Your task to perform on an android device: open app "Microsoft Excel" (install if not already installed) and enter user name: "kidnappers@icloud.com" and password: "Bessemerizes" Image 0: 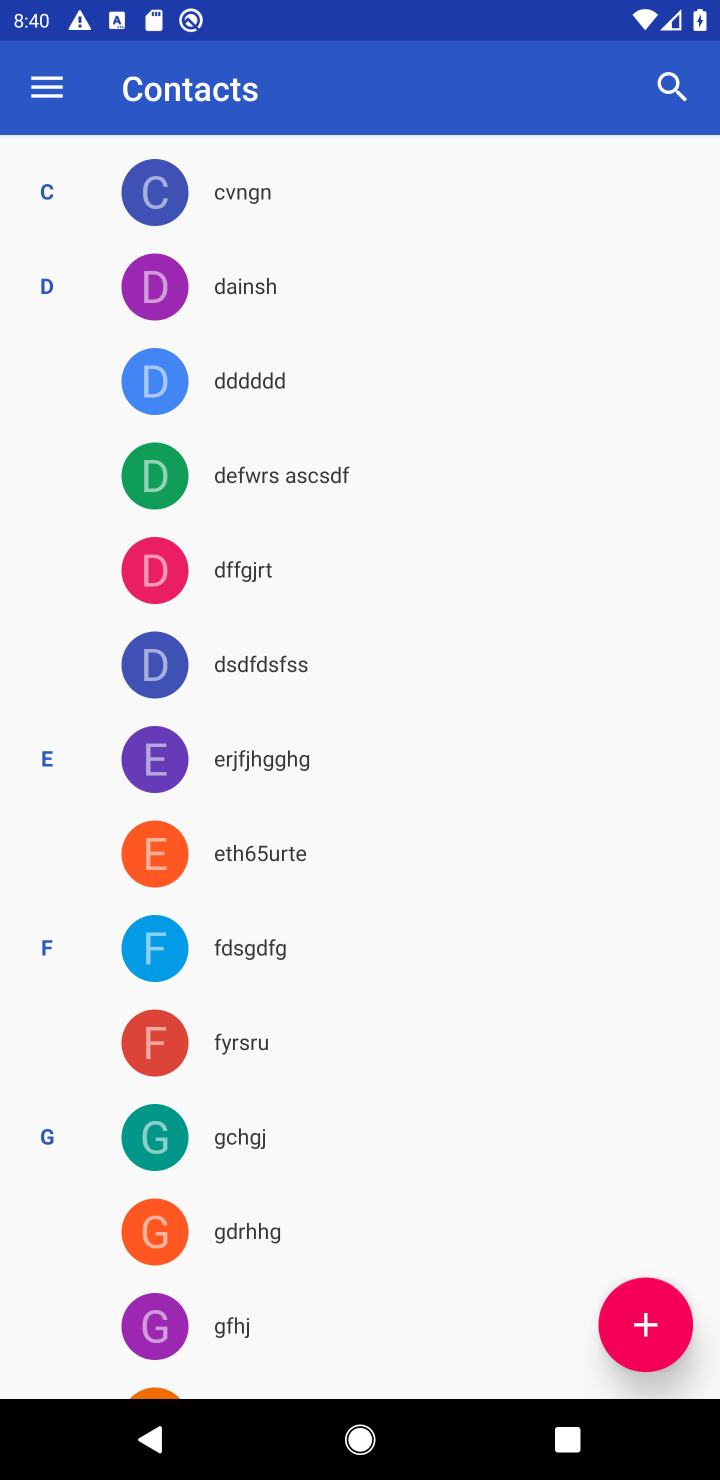
Step 0: press home button
Your task to perform on an android device: open app "Microsoft Excel" (install if not already installed) and enter user name: "kidnappers@icloud.com" and password: "Bessemerizes" Image 1: 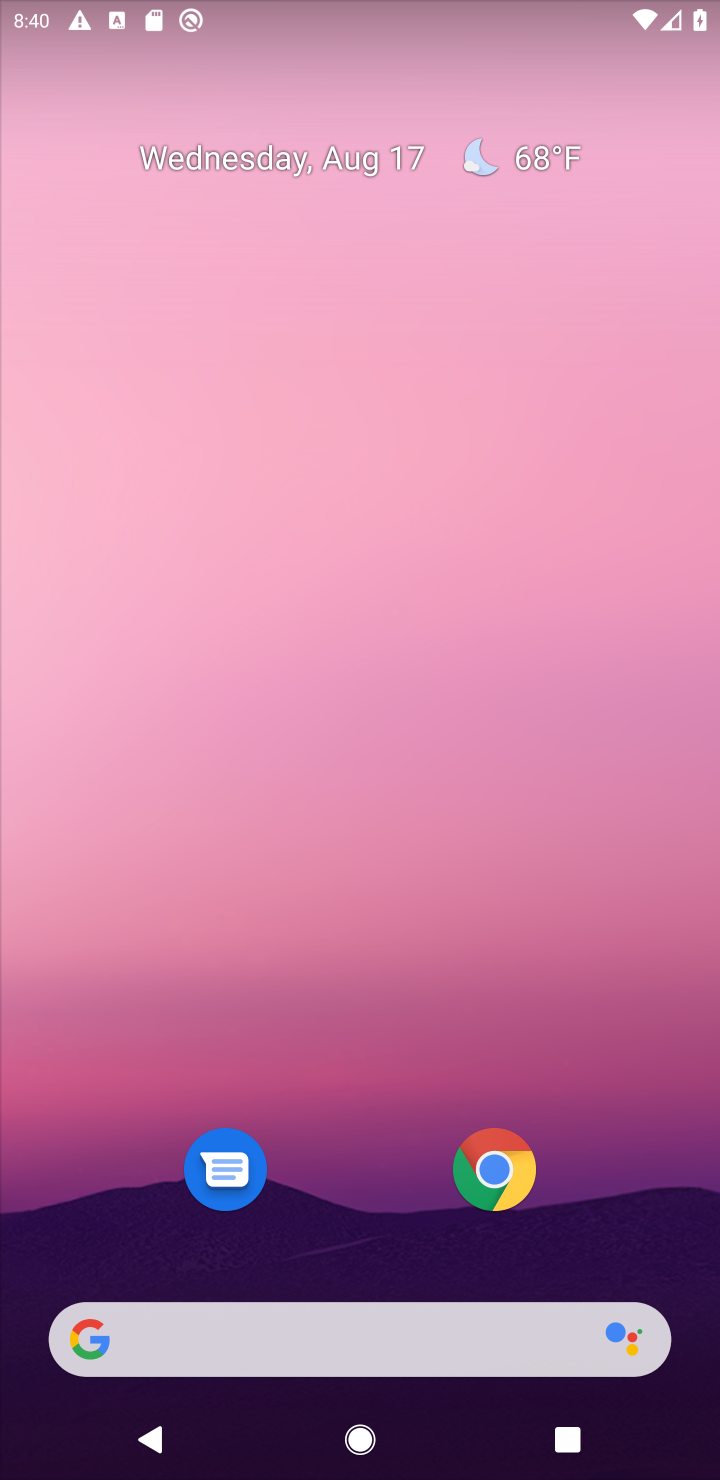
Step 1: drag from (331, 1162) to (340, 5)
Your task to perform on an android device: open app "Microsoft Excel" (install if not already installed) and enter user name: "kidnappers@icloud.com" and password: "Bessemerizes" Image 2: 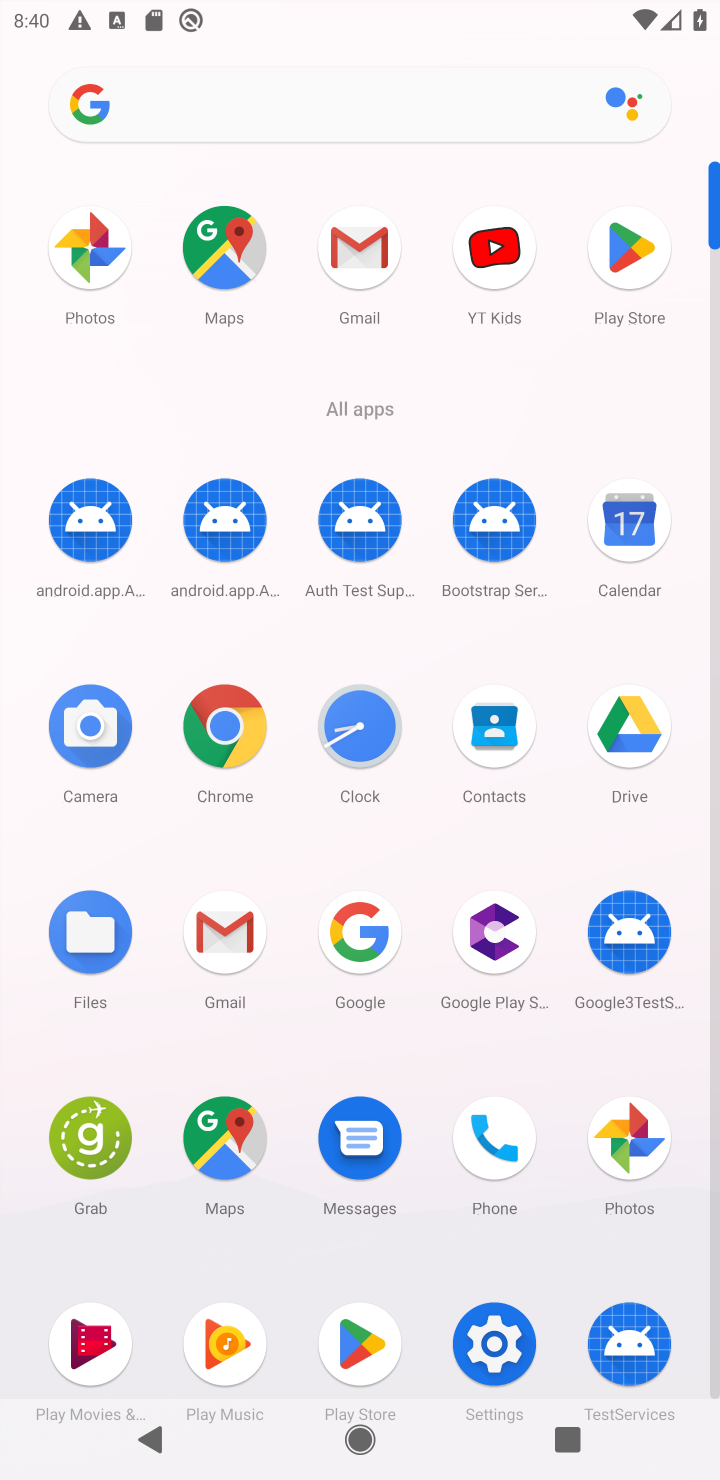
Step 2: click (645, 282)
Your task to perform on an android device: open app "Microsoft Excel" (install if not already installed) and enter user name: "kidnappers@icloud.com" and password: "Bessemerizes" Image 3: 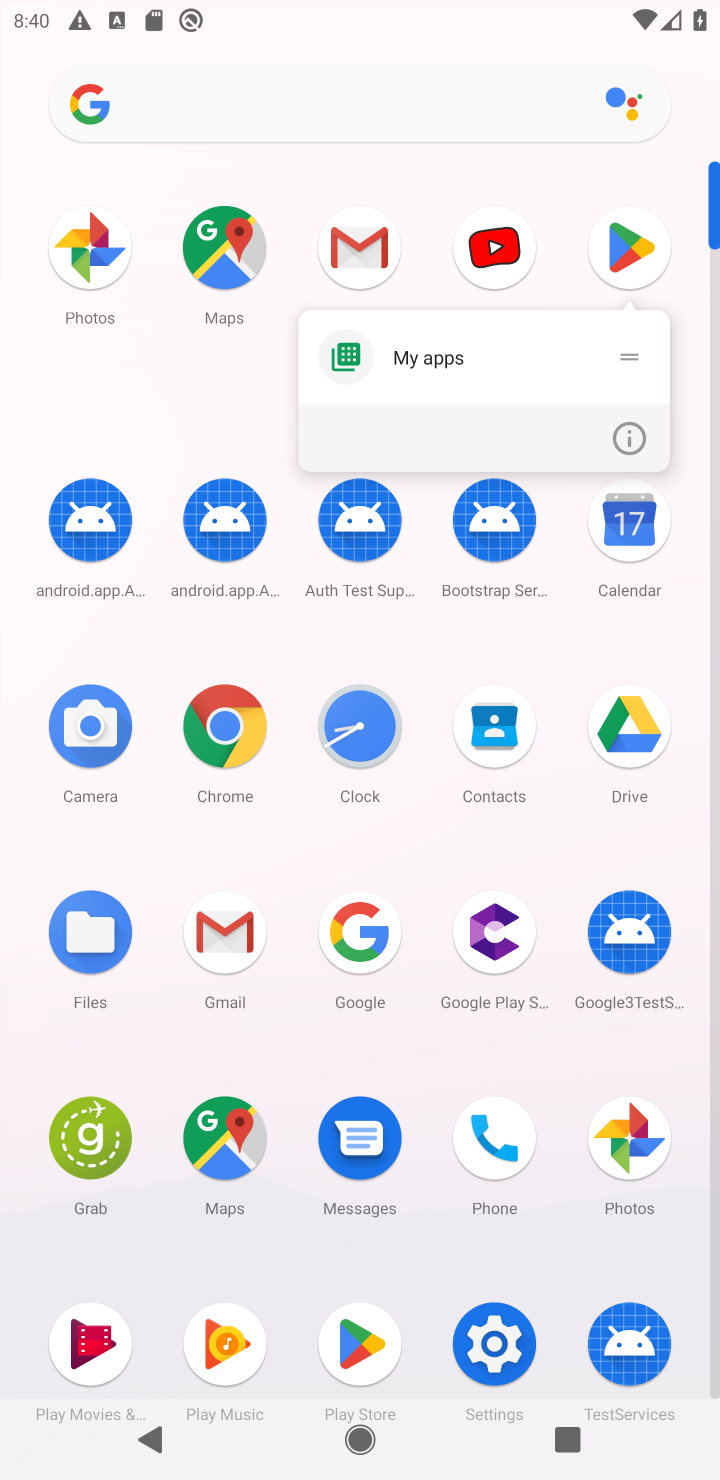
Step 3: click (643, 258)
Your task to perform on an android device: open app "Microsoft Excel" (install if not already installed) and enter user name: "kidnappers@icloud.com" and password: "Bessemerizes" Image 4: 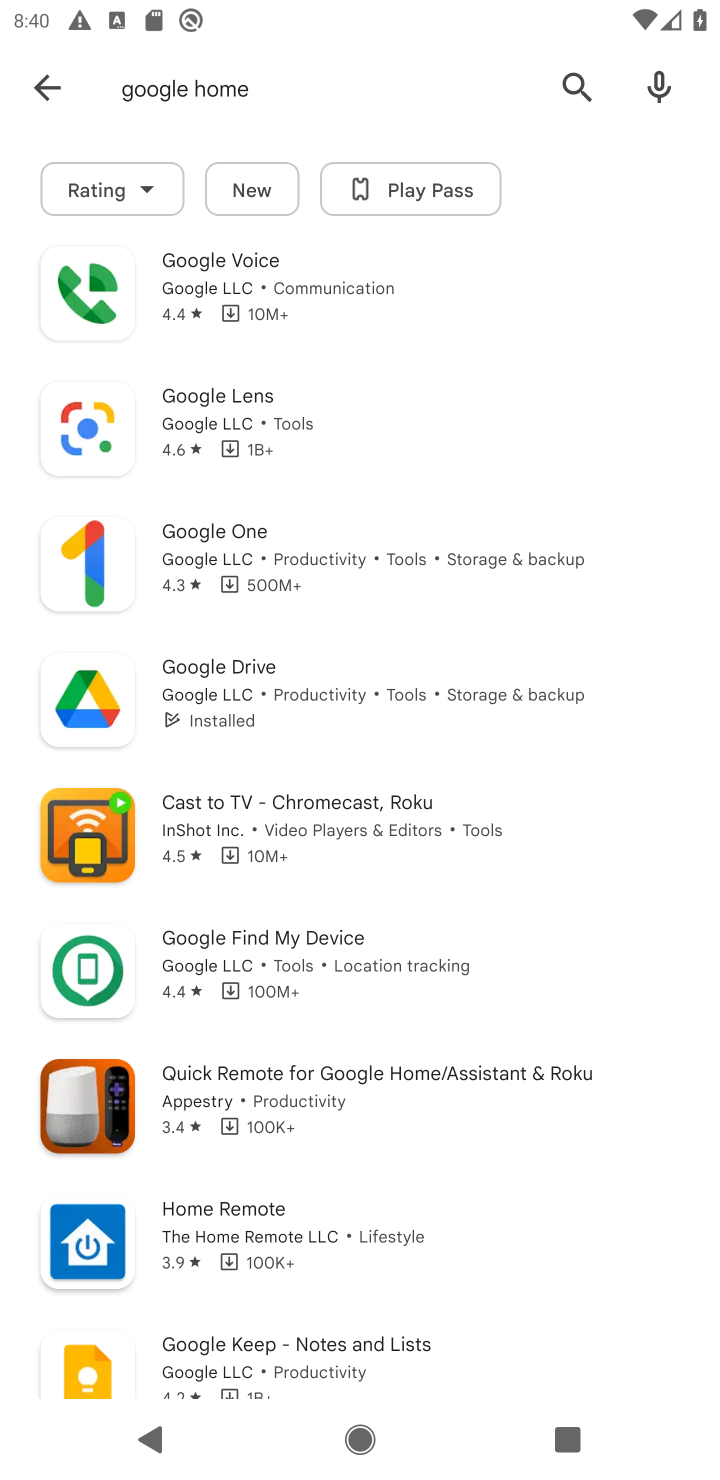
Step 4: click (265, 68)
Your task to perform on an android device: open app "Microsoft Excel" (install if not already installed) and enter user name: "kidnappers@icloud.com" and password: "Bessemerizes" Image 5: 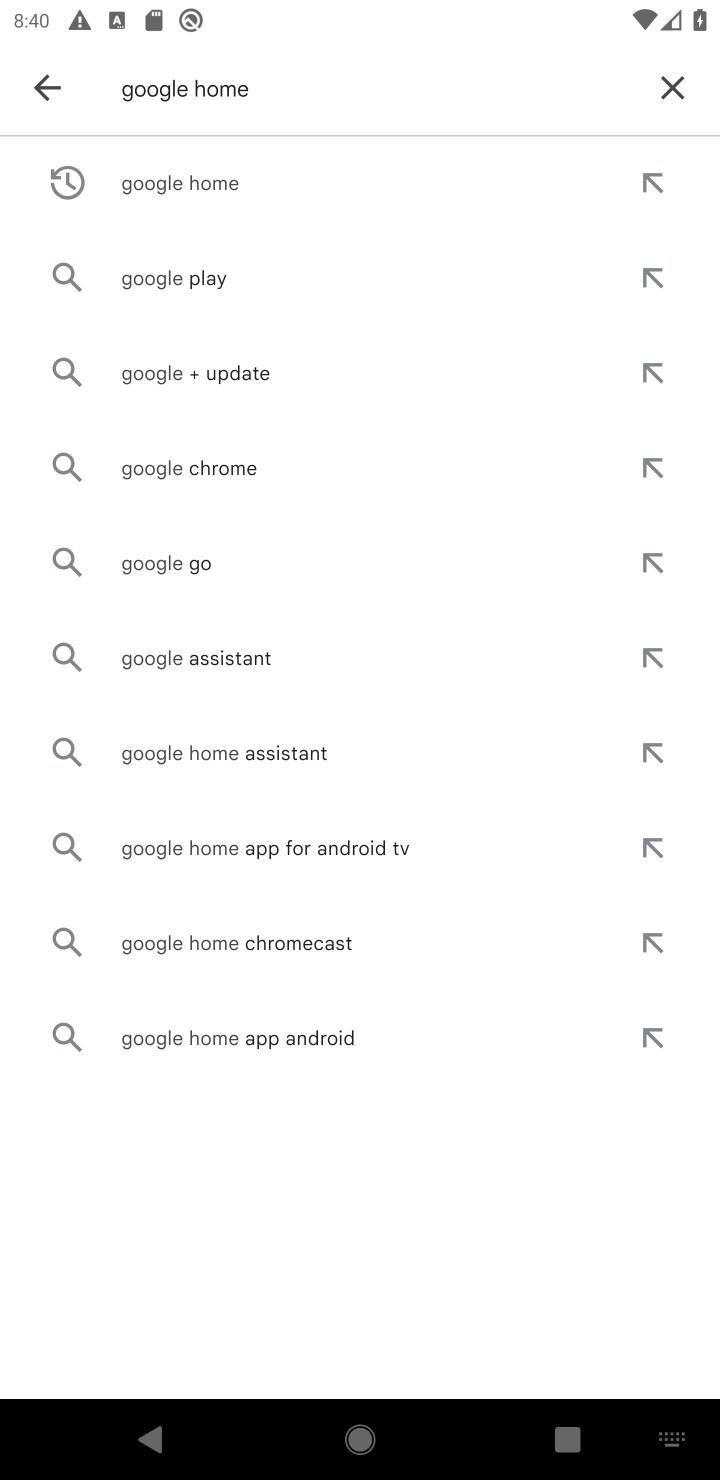
Step 5: click (656, 79)
Your task to perform on an android device: open app "Microsoft Excel" (install if not already installed) and enter user name: "kidnappers@icloud.com" and password: "Bessemerizes" Image 6: 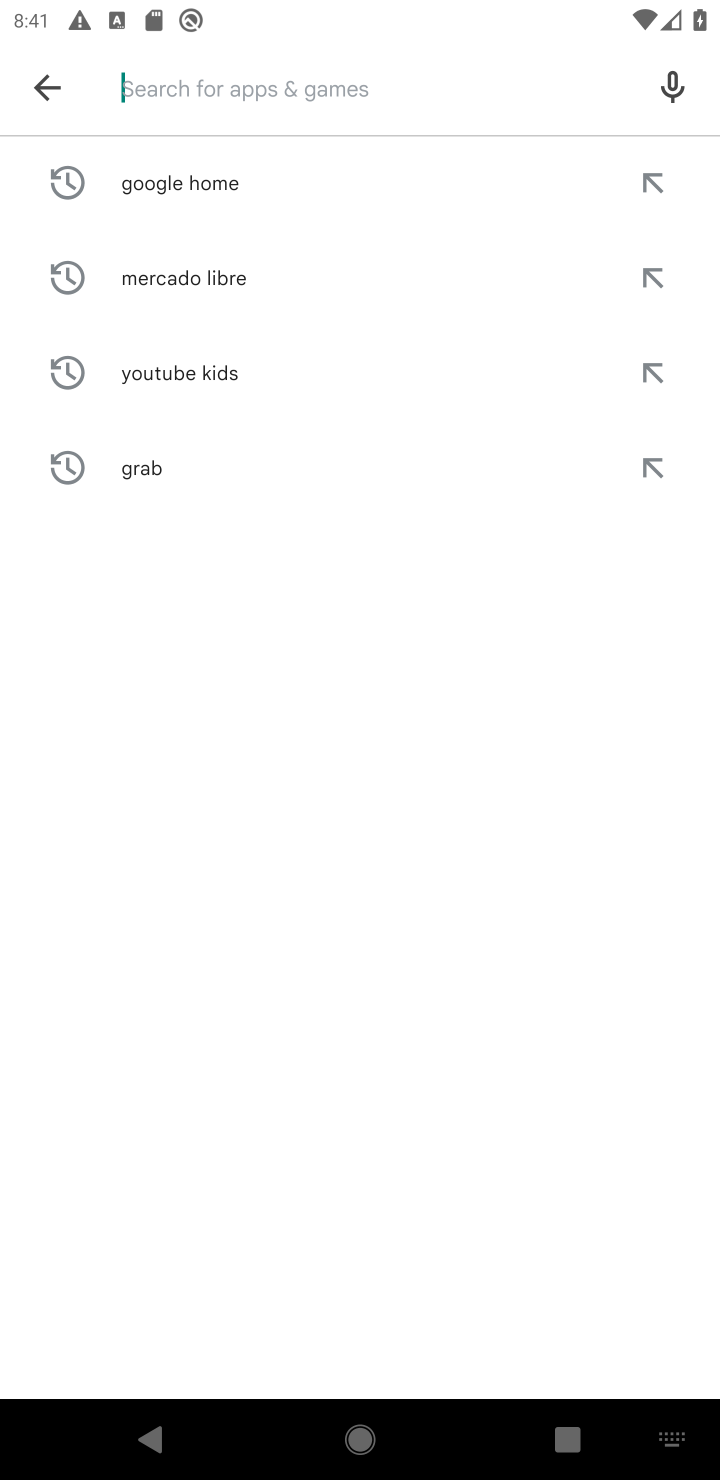
Step 6: type "microsoft excel"
Your task to perform on an android device: open app "Microsoft Excel" (install if not already installed) and enter user name: "kidnappers@icloud.com" and password: "Bessemerizes" Image 7: 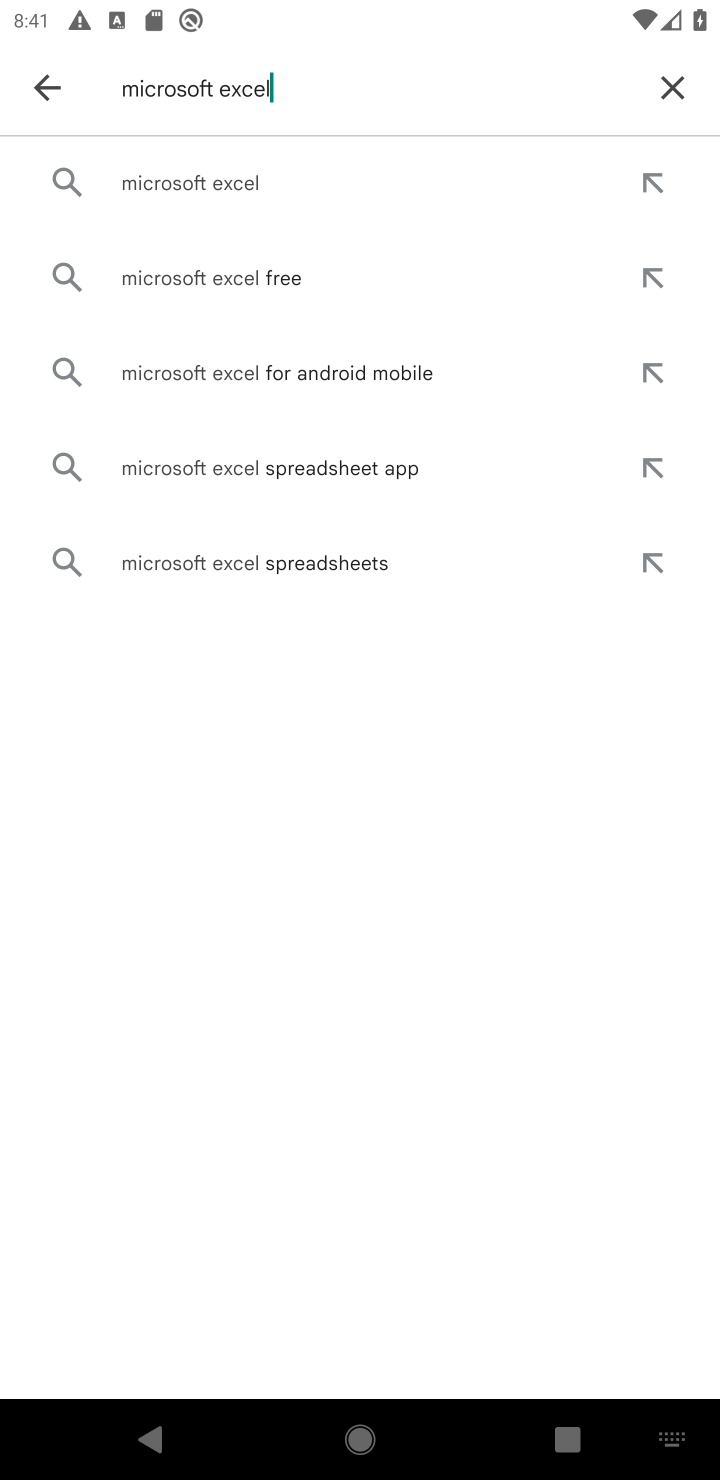
Step 7: click (254, 193)
Your task to perform on an android device: open app "Microsoft Excel" (install if not already installed) and enter user name: "kidnappers@icloud.com" and password: "Bessemerizes" Image 8: 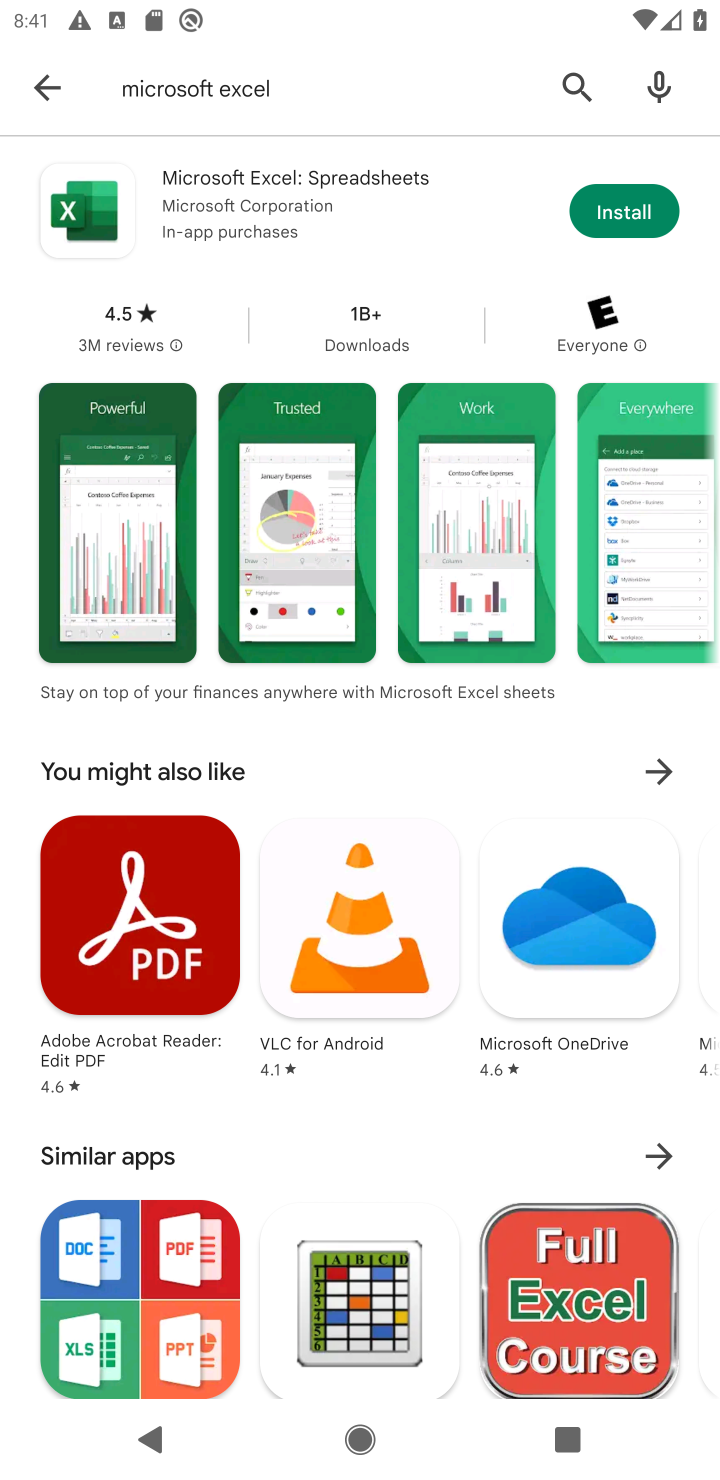
Step 8: click (651, 193)
Your task to perform on an android device: open app "Microsoft Excel" (install if not already installed) and enter user name: "kidnappers@icloud.com" and password: "Bessemerizes" Image 9: 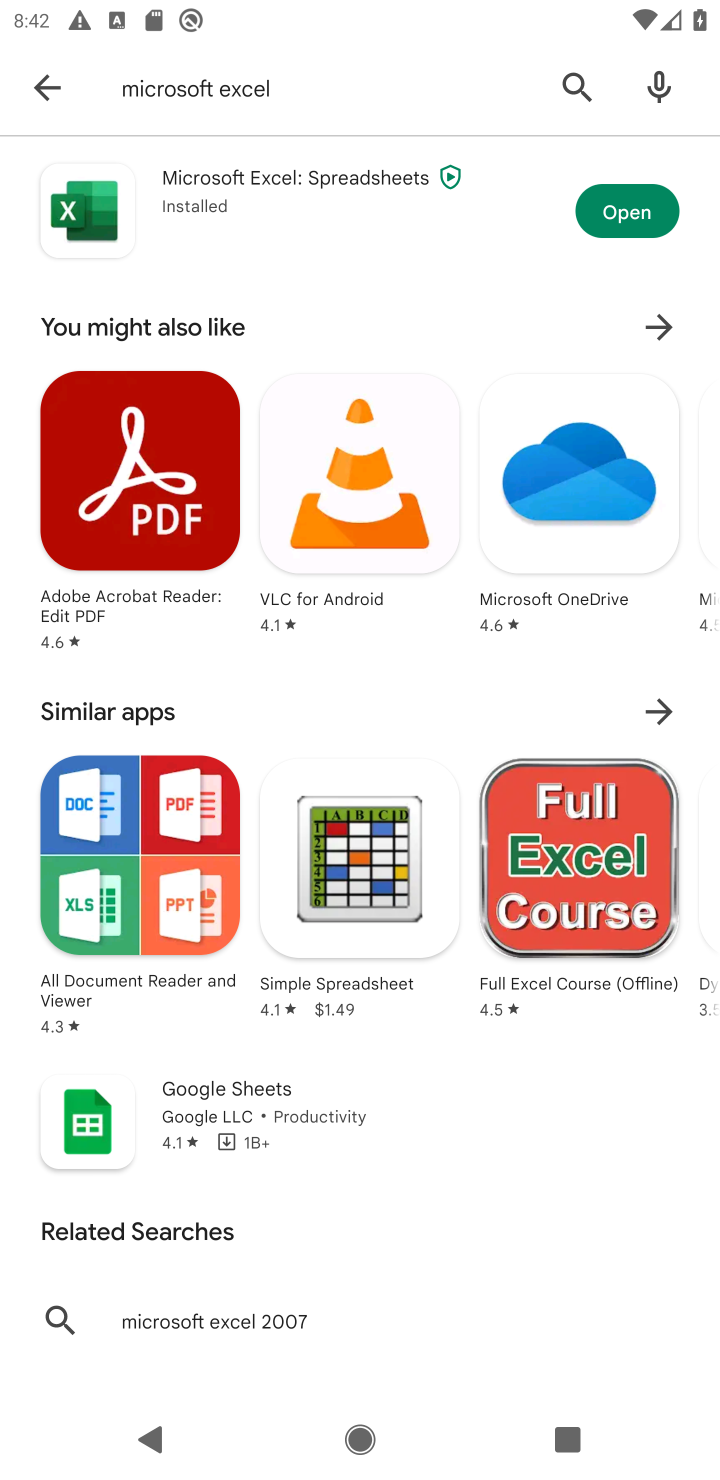
Step 9: click (602, 208)
Your task to perform on an android device: open app "Microsoft Excel" (install if not already installed) and enter user name: "kidnappers@icloud.com" and password: "Bessemerizes" Image 10: 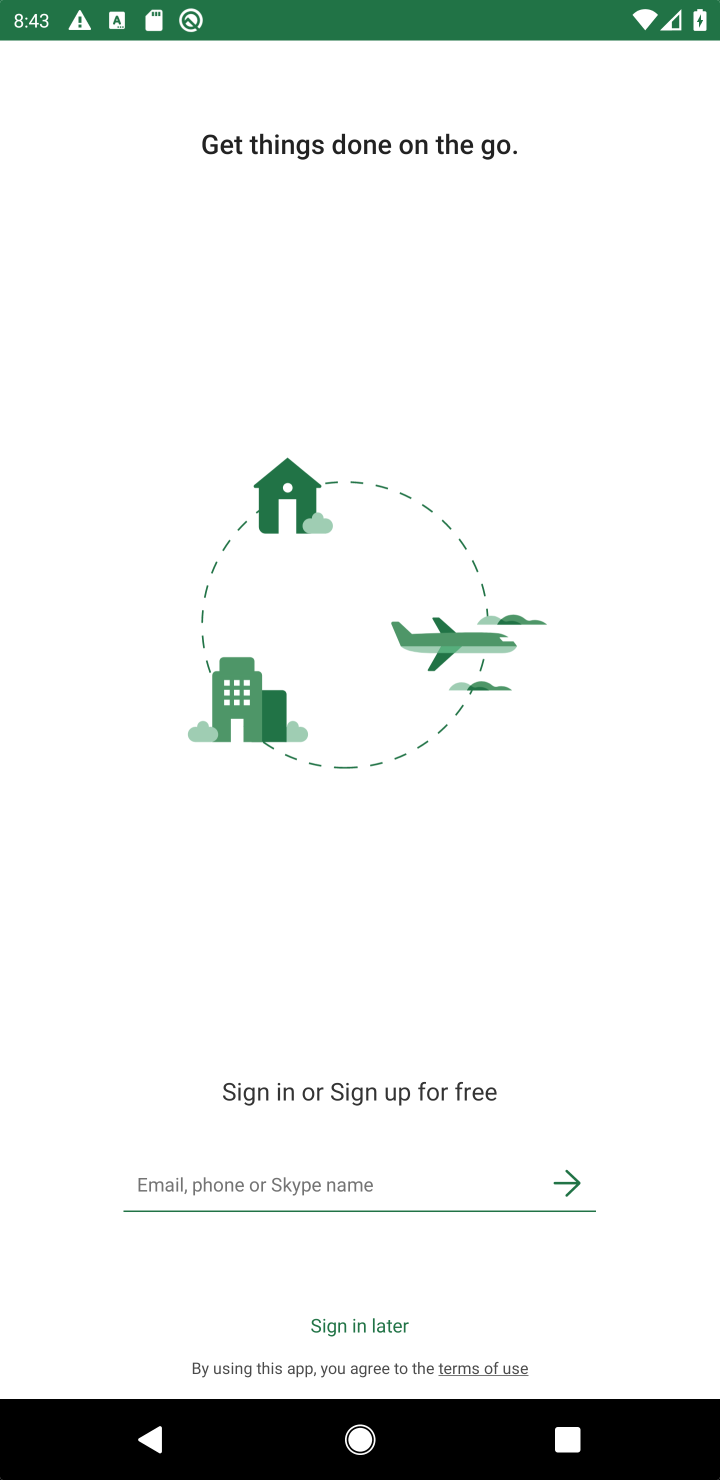
Step 10: type "kidnappers@icloud.com"
Your task to perform on an android device: open app "Microsoft Excel" (install if not already installed) and enter user name: "kidnappers@icloud.com" and password: "Bessemerizes" Image 11: 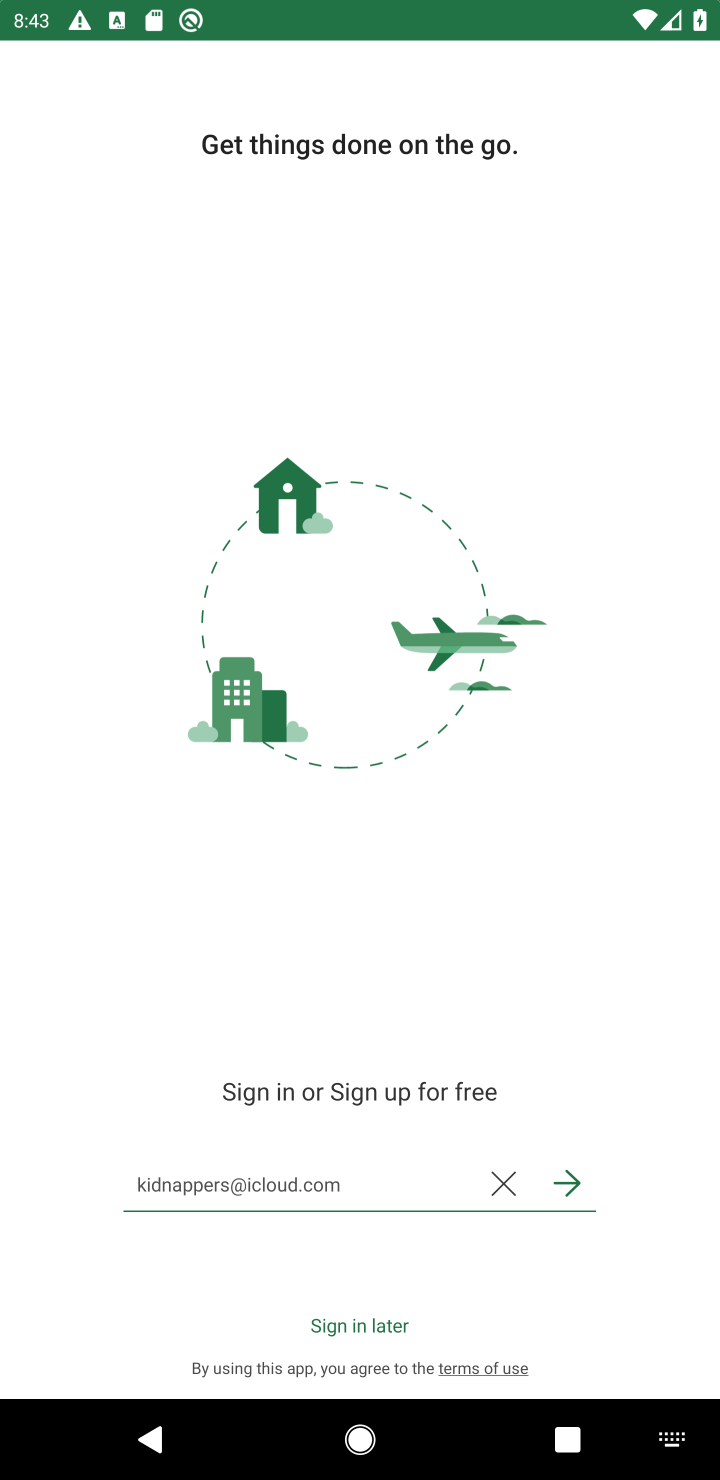
Step 11: click (446, 1175)
Your task to perform on an android device: open app "Microsoft Excel" (install if not already installed) and enter user name: "kidnappers@icloud.com" and password: "Bessemerizes" Image 12: 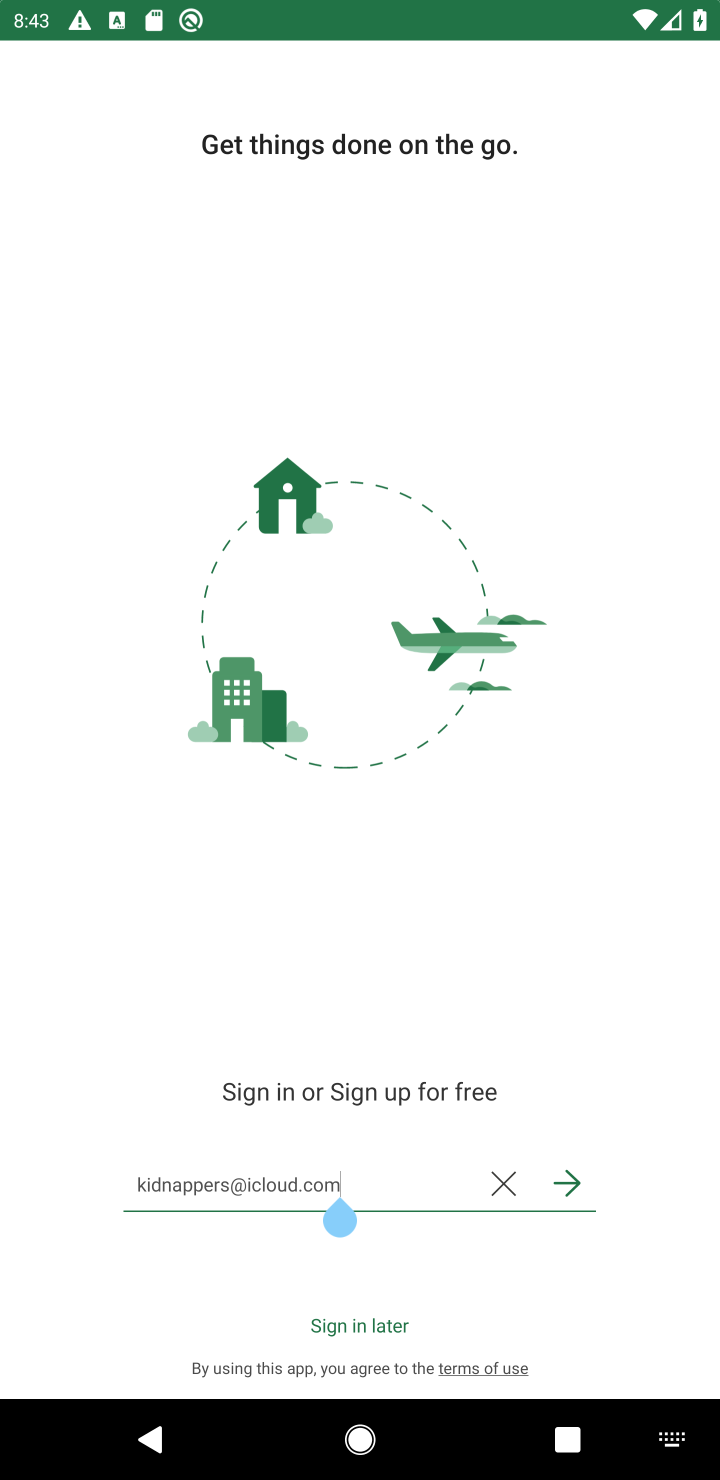
Step 12: click (568, 1185)
Your task to perform on an android device: open app "Microsoft Excel" (install if not already installed) and enter user name: "kidnappers@icloud.com" and password: "Bessemerizes" Image 13: 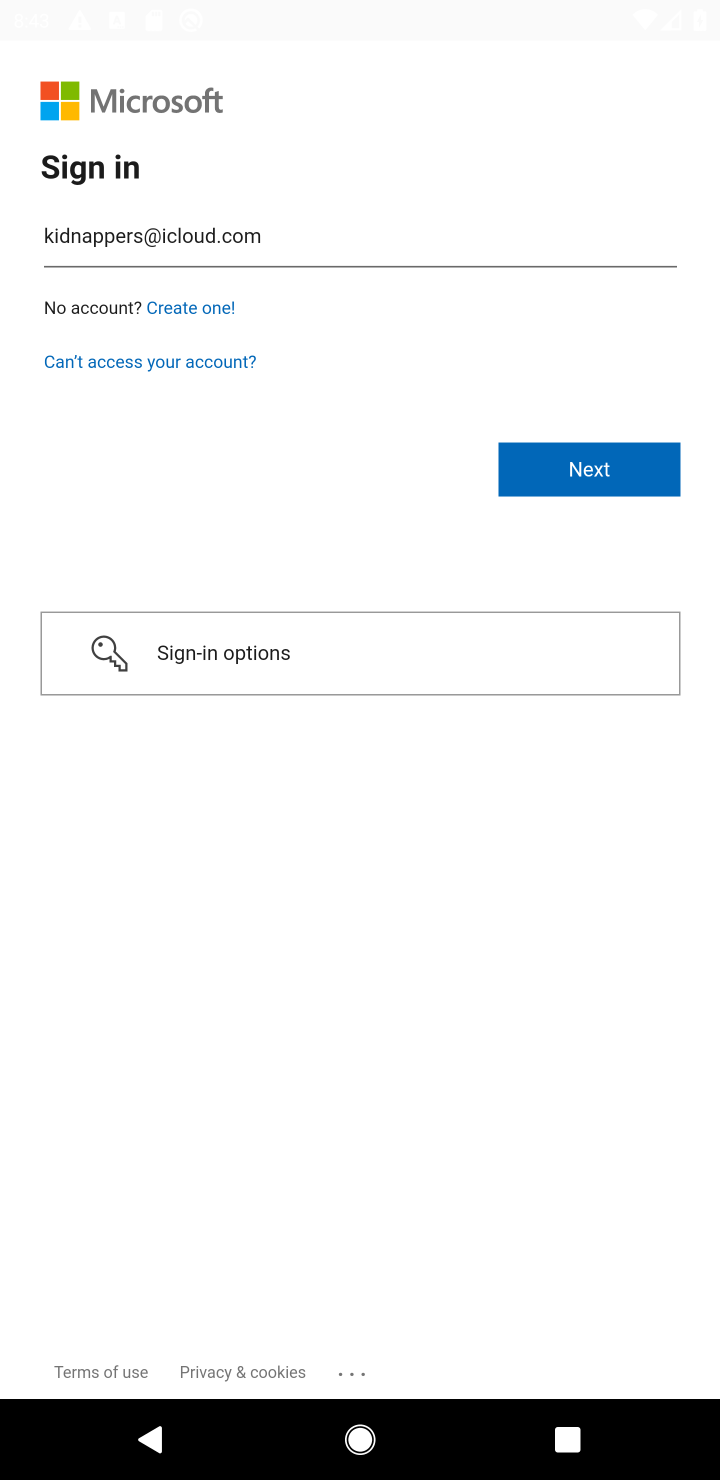
Step 13: click (558, 474)
Your task to perform on an android device: open app "Microsoft Excel" (install if not already installed) and enter user name: "kidnappers@icloud.com" and password: "Bessemerizes" Image 14: 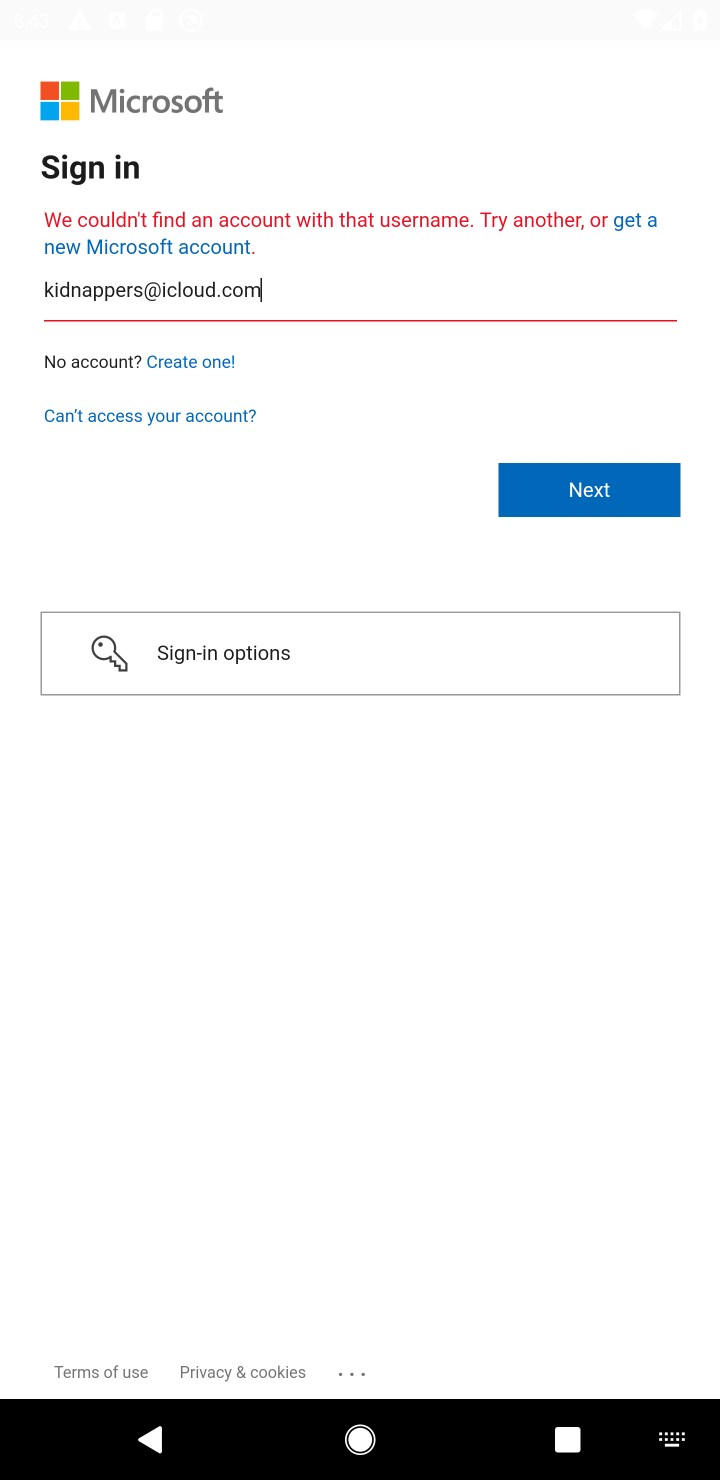
Step 14: task complete